Your task to perform on an android device: Open battery settings Image 0: 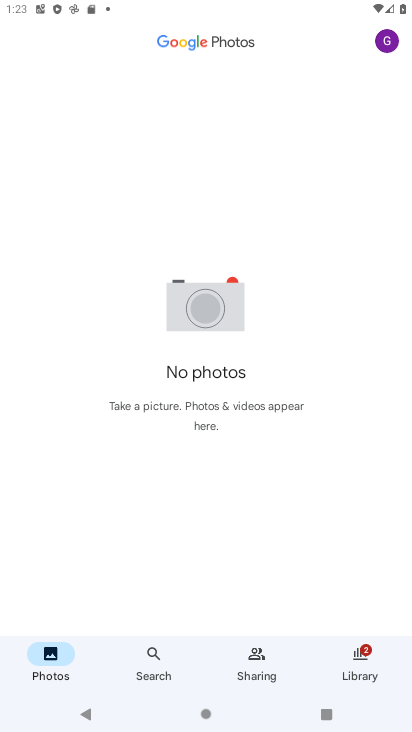
Step 0: press home button
Your task to perform on an android device: Open battery settings Image 1: 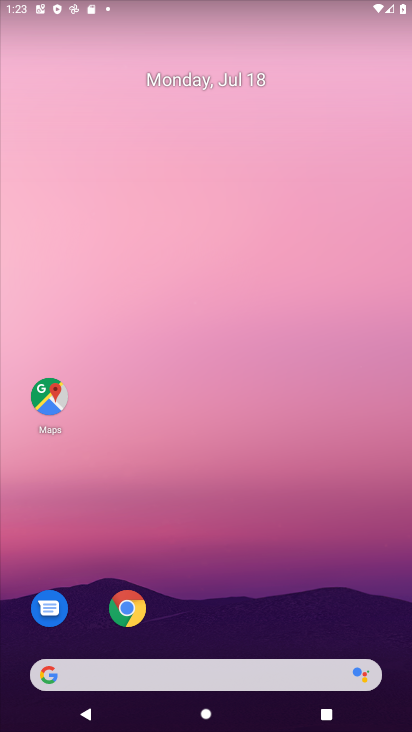
Step 1: drag from (358, 598) to (233, 59)
Your task to perform on an android device: Open battery settings Image 2: 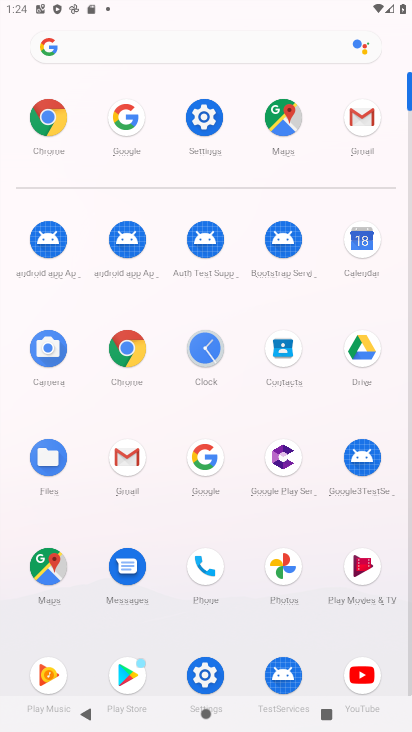
Step 2: click (187, 671)
Your task to perform on an android device: Open battery settings Image 3: 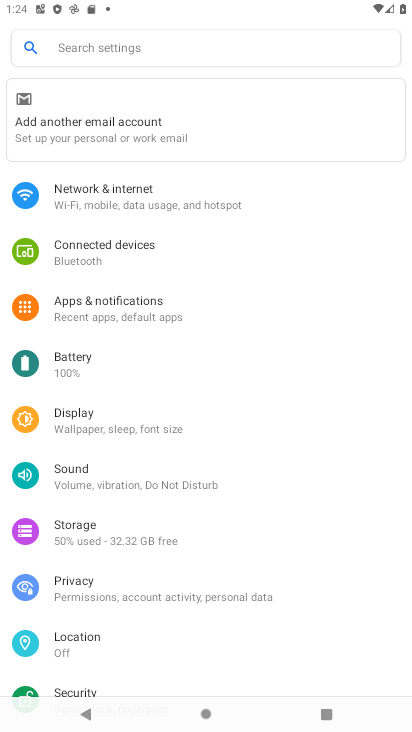
Step 3: click (101, 363)
Your task to perform on an android device: Open battery settings Image 4: 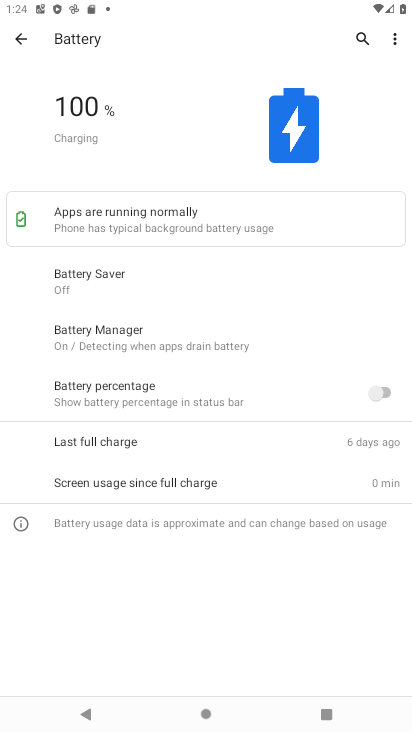
Step 4: task complete